Your task to perform on an android device: Open the music app Image 0: 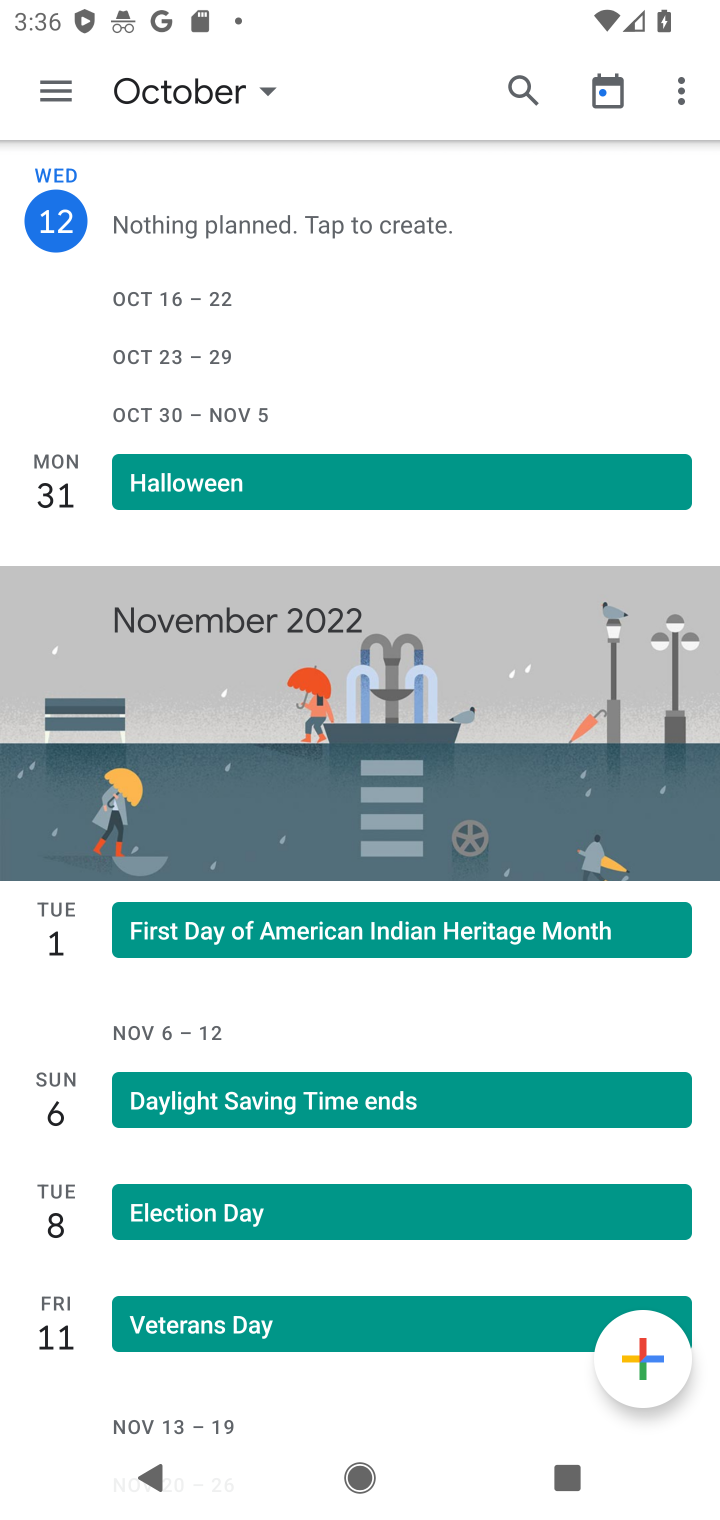
Step 0: press home button
Your task to perform on an android device: Open the music app Image 1: 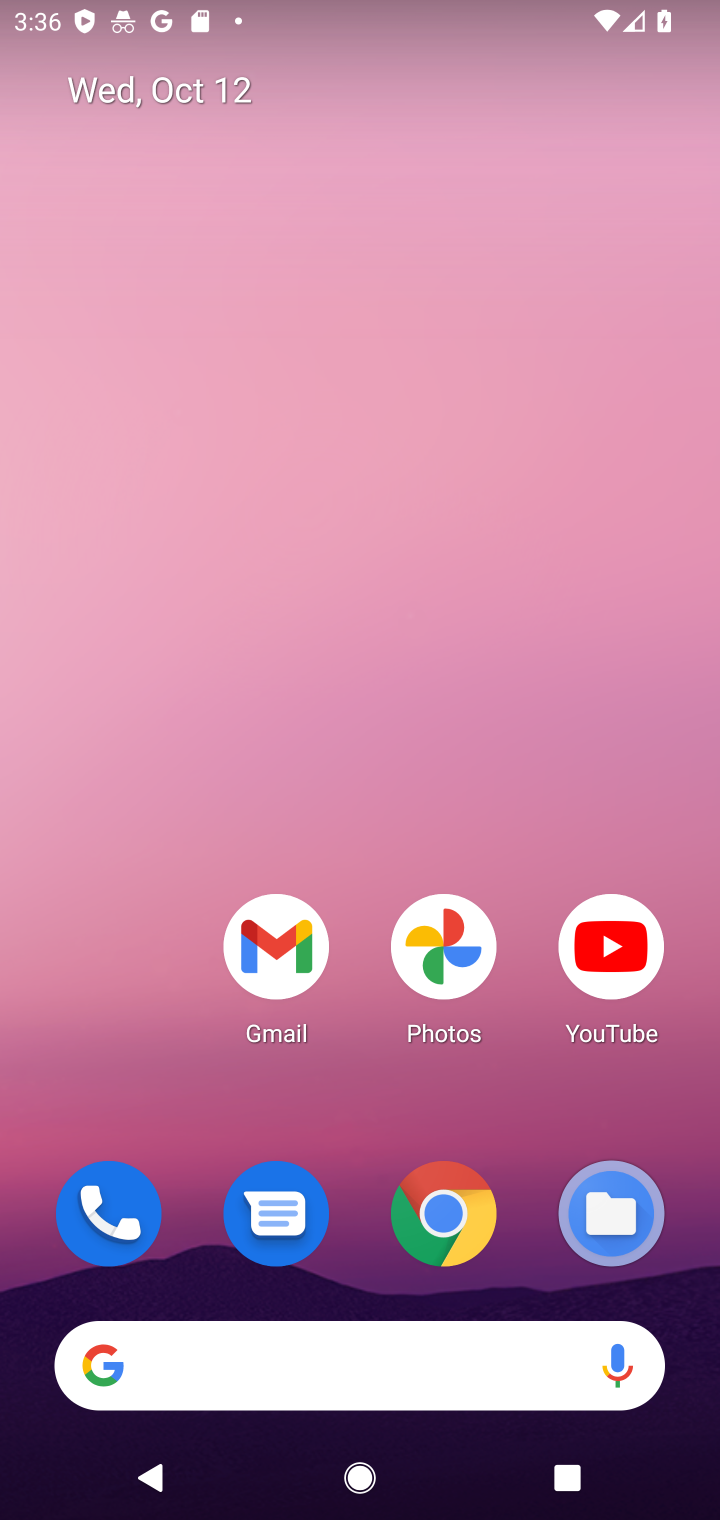
Step 1: drag from (407, 876) to (458, 10)
Your task to perform on an android device: Open the music app Image 2: 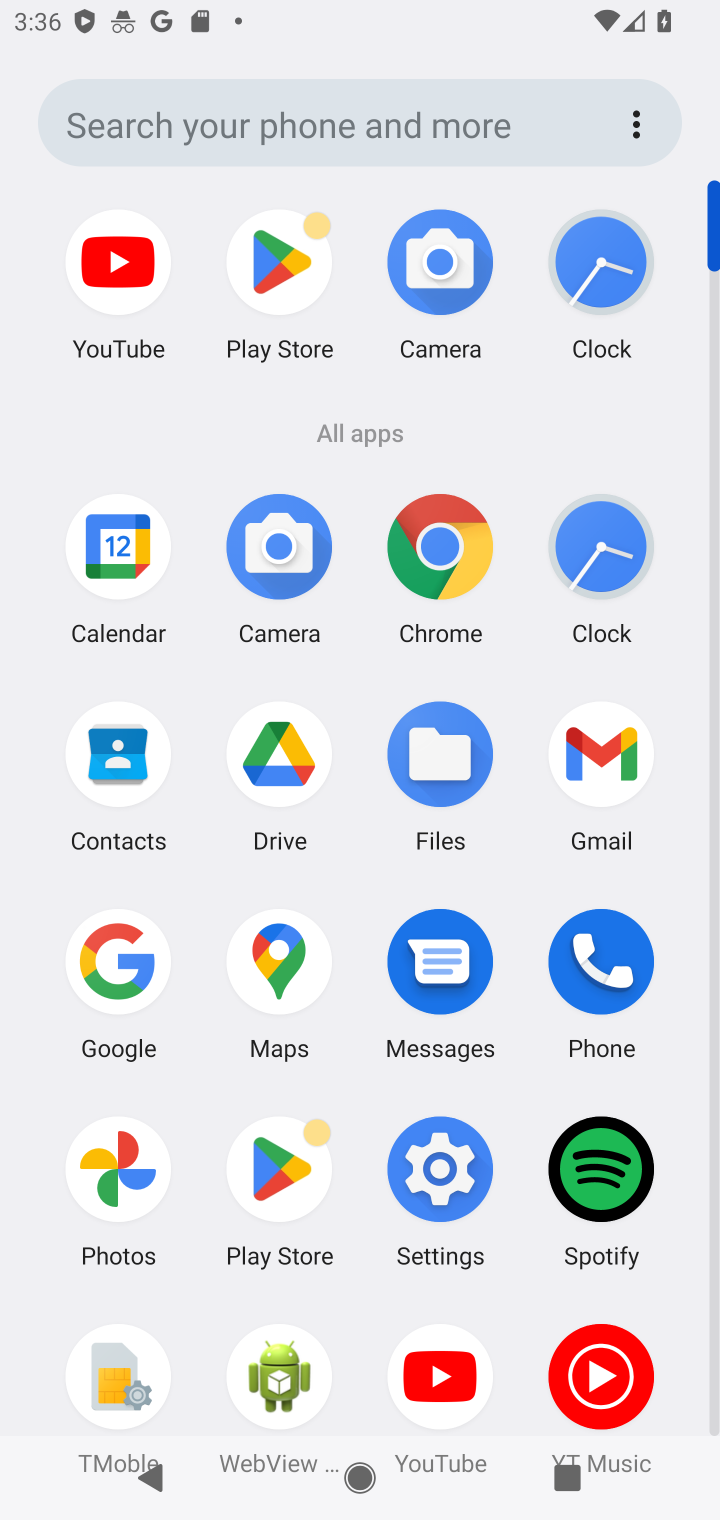
Step 2: click (617, 1392)
Your task to perform on an android device: Open the music app Image 3: 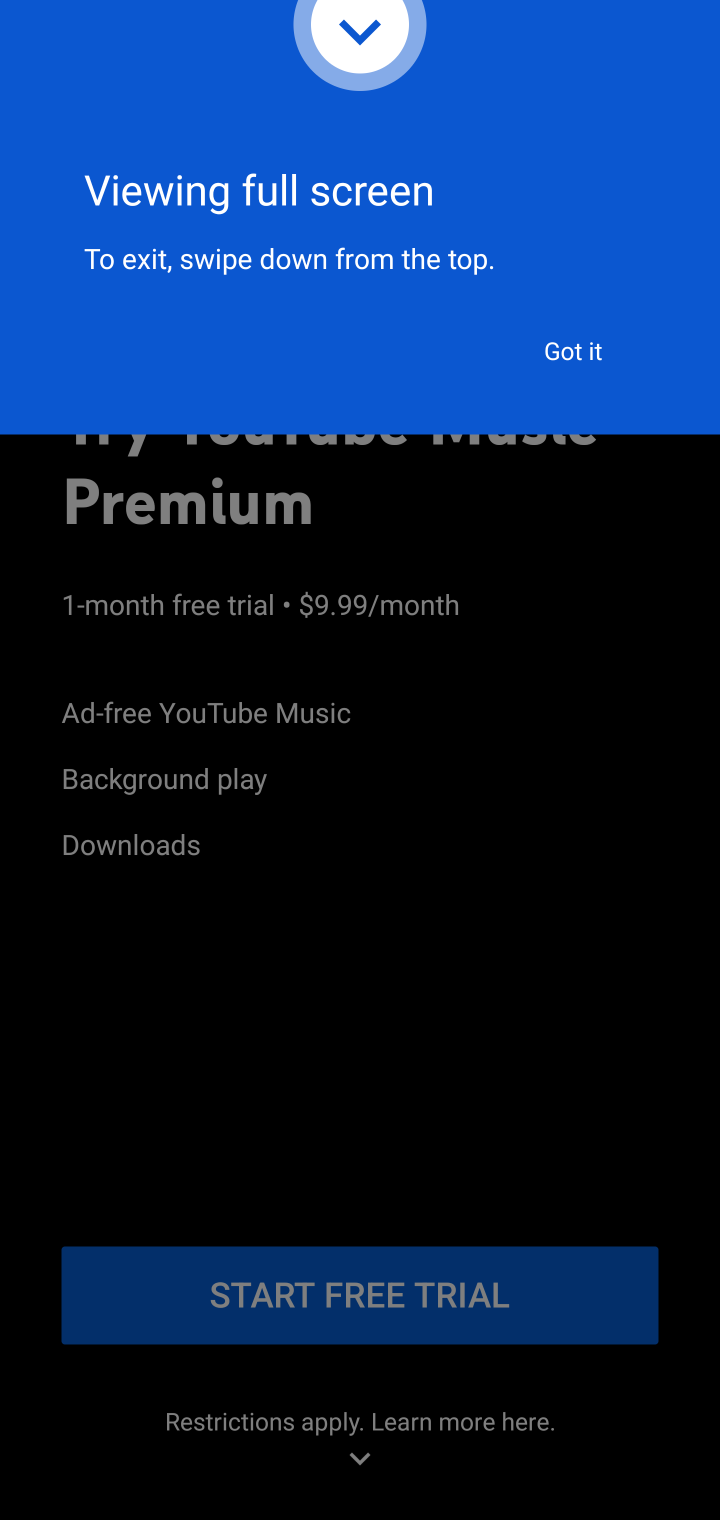
Step 3: task complete